Your task to perform on an android device: turn off notifications in google photos Image 0: 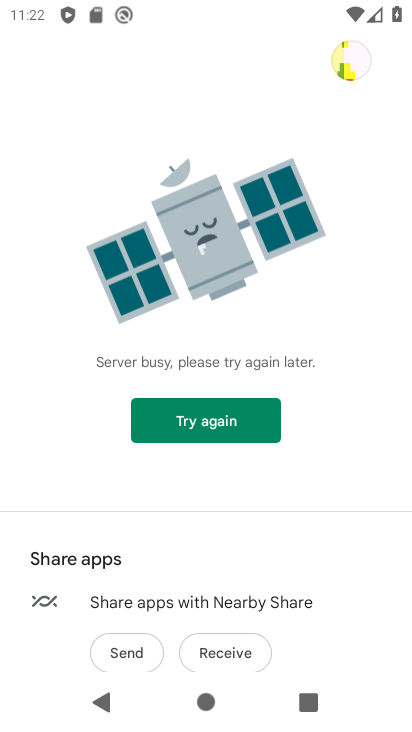
Step 0: press home button
Your task to perform on an android device: turn off notifications in google photos Image 1: 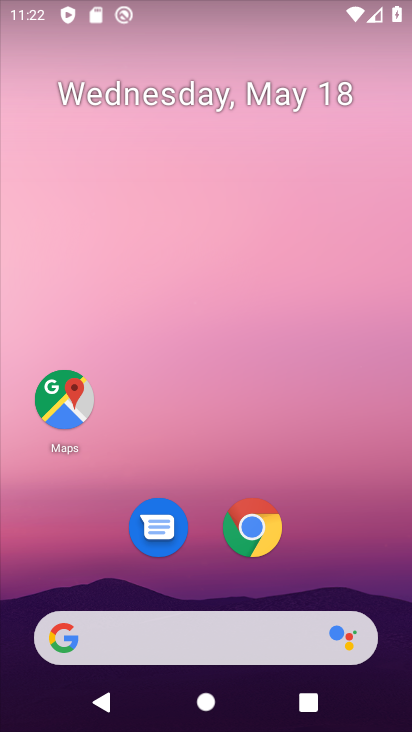
Step 1: drag from (196, 582) to (244, 153)
Your task to perform on an android device: turn off notifications in google photos Image 2: 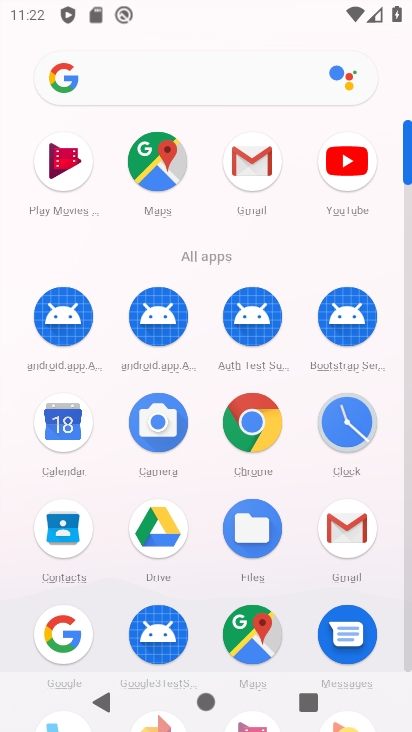
Step 2: drag from (222, 597) to (284, 113)
Your task to perform on an android device: turn off notifications in google photos Image 3: 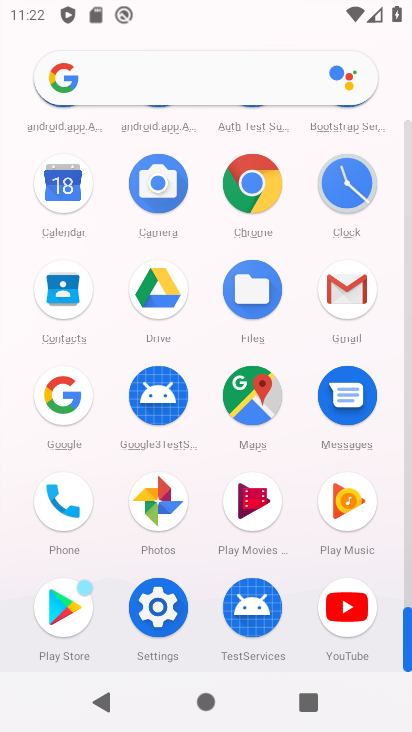
Step 3: click (173, 506)
Your task to perform on an android device: turn off notifications in google photos Image 4: 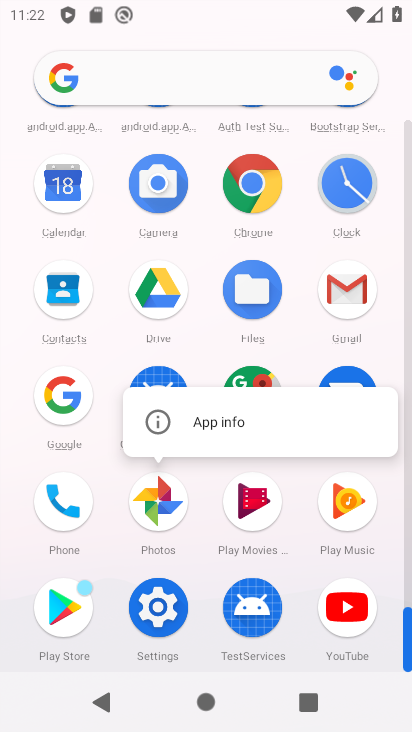
Step 4: click (158, 415)
Your task to perform on an android device: turn off notifications in google photos Image 5: 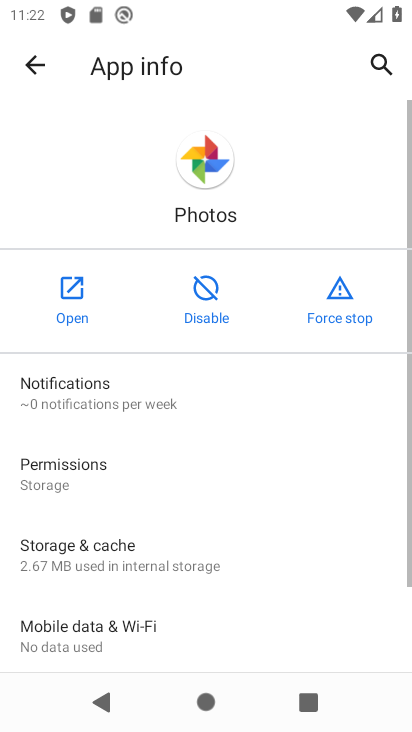
Step 5: click (115, 389)
Your task to perform on an android device: turn off notifications in google photos Image 6: 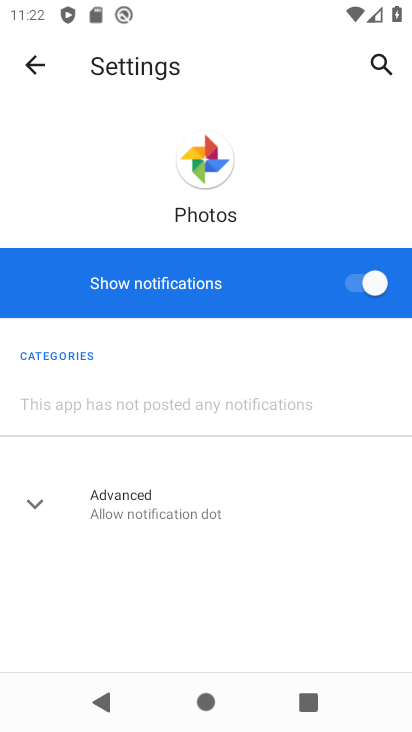
Step 6: click (366, 288)
Your task to perform on an android device: turn off notifications in google photos Image 7: 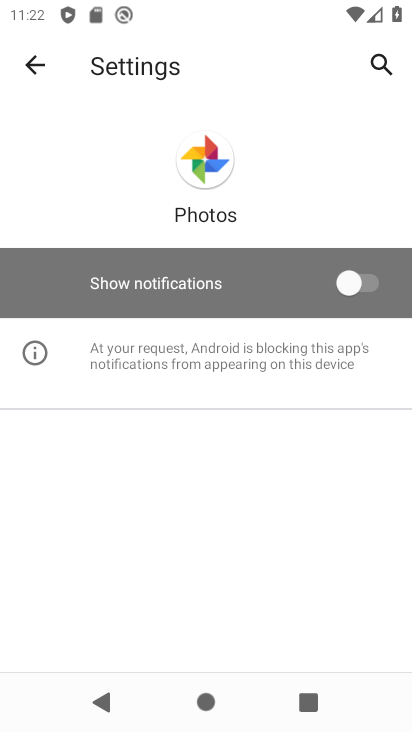
Step 7: task complete